Your task to perform on an android device: turn off translation in the chrome app Image 0: 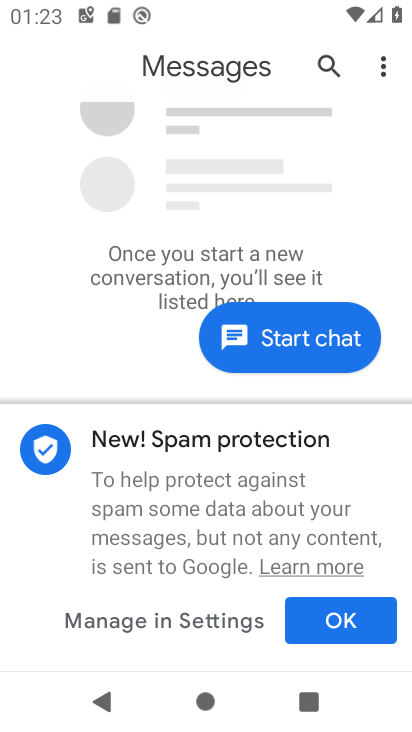
Step 0: press home button
Your task to perform on an android device: turn off translation in the chrome app Image 1: 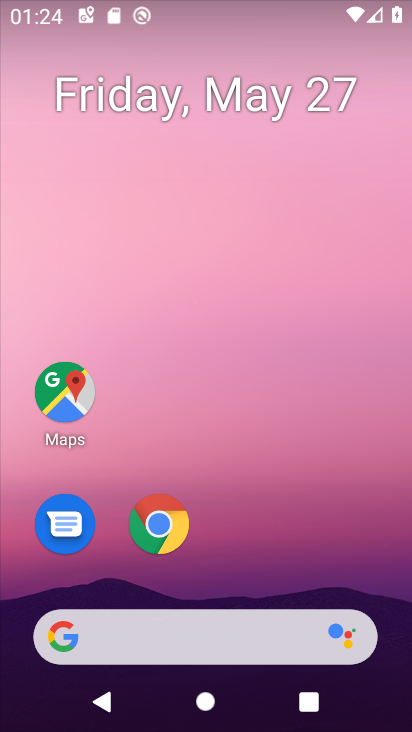
Step 1: click (167, 509)
Your task to perform on an android device: turn off translation in the chrome app Image 2: 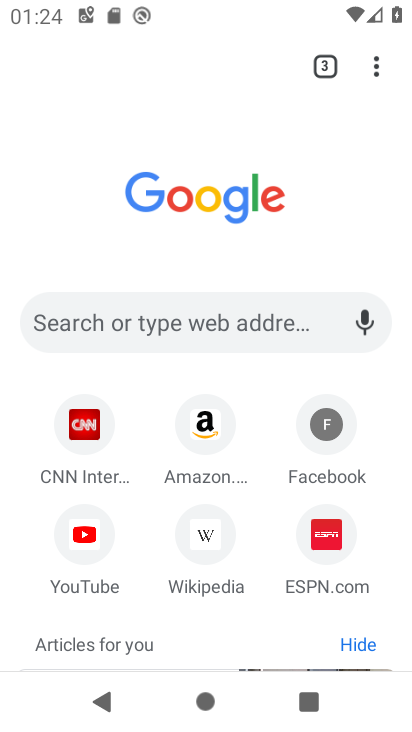
Step 2: click (368, 59)
Your task to perform on an android device: turn off translation in the chrome app Image 3: 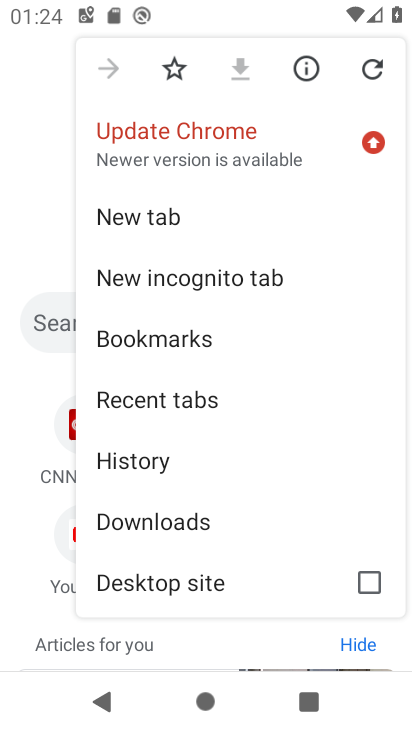
Step 3: drag from (253, 450) to (306, 135)
Your task to perform on an android device: turn off translation in the chrome app Image 4: 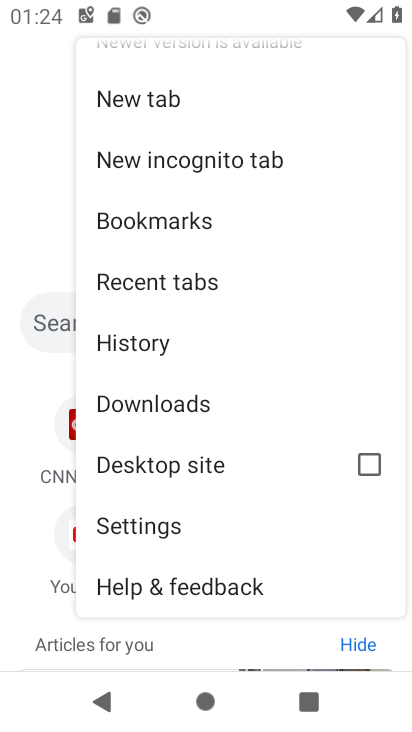
Step 4: click (179, 525)
Your task to perform on an android device: turn off translation in the chrome app Image 5: 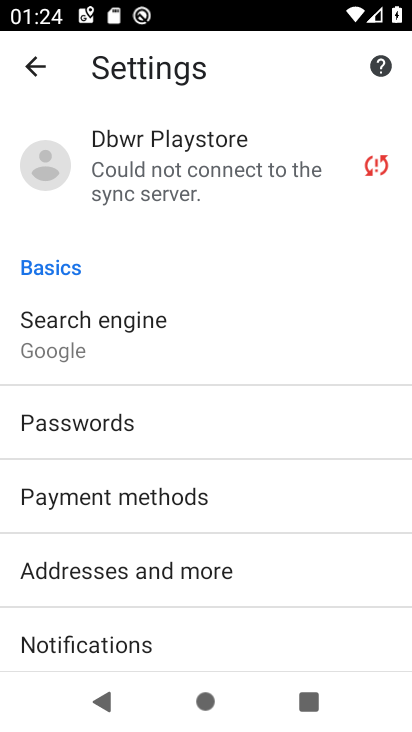
Step 5: drag from (284, 538) to (308, 174)
Your task to perform on an android device: turn off translation in the chrome app Image 6: 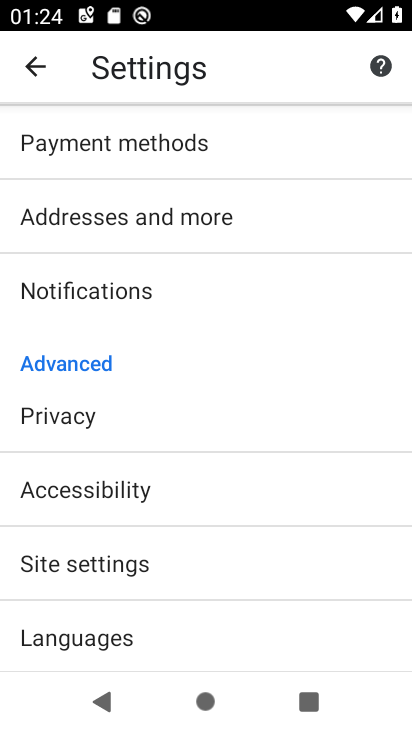
Step 6: click (219, 629)
Your task to perform on an android device: turn off translation in the chrome app Image 7: 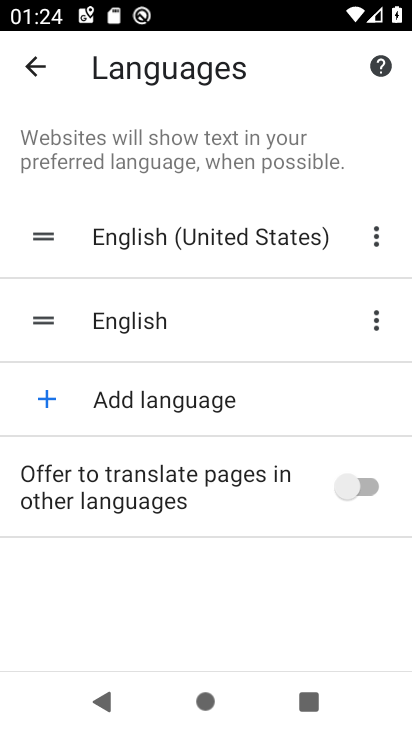
Step 7: task complete